Your task to perform on an android device: remove spam from my inbox in the gmail app Image 0: 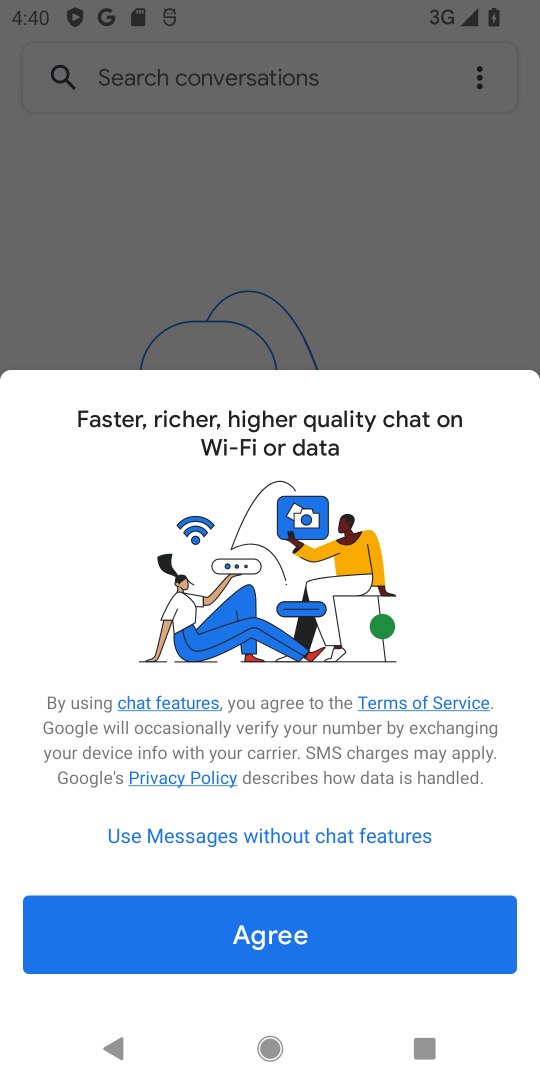
Step 0: press home button
Your task to perform on an android device: remove spam from my inbox in the gmail app Image 1: 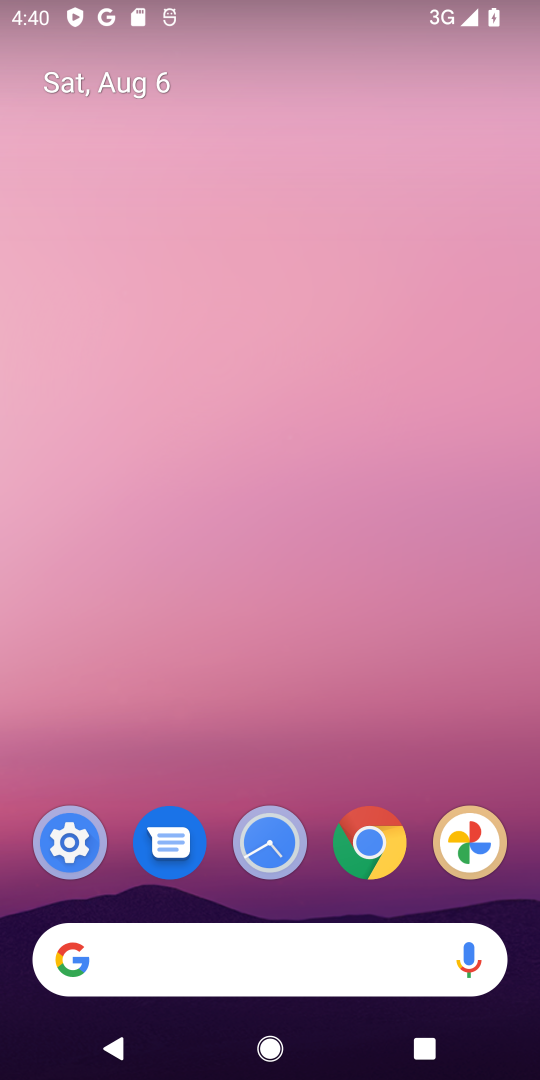
Step 1: drag from (526, 949) to (381, 138)
Your task to perform on an android device: remove spam from my inbox in the gmail app Image 2: 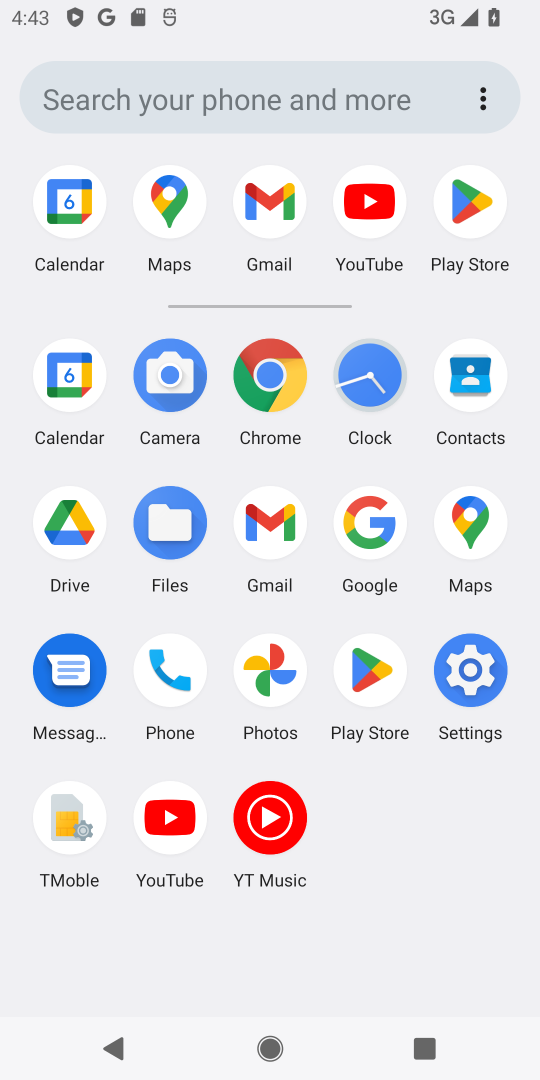
Step 2: click (269, 529)
Your task to perform on an android device: remove spam from my inbox in the gmail app Image 3: 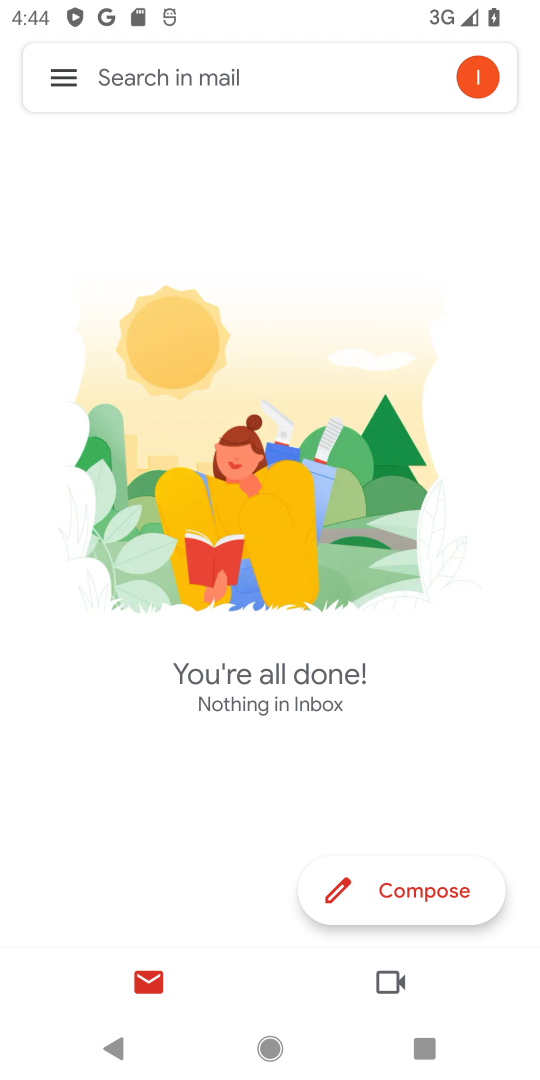
Step 3: task complete